Your task to perform on an android device: Play the last video I watched on Youtube Image 0: 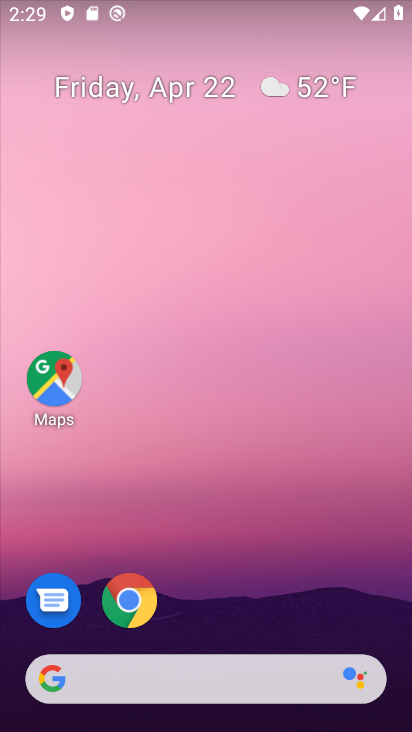
Step 0: drag from (342, 496) to (252, 59)
Your task to perform on an android device: Play the last video I watched on Youtube Image 1: 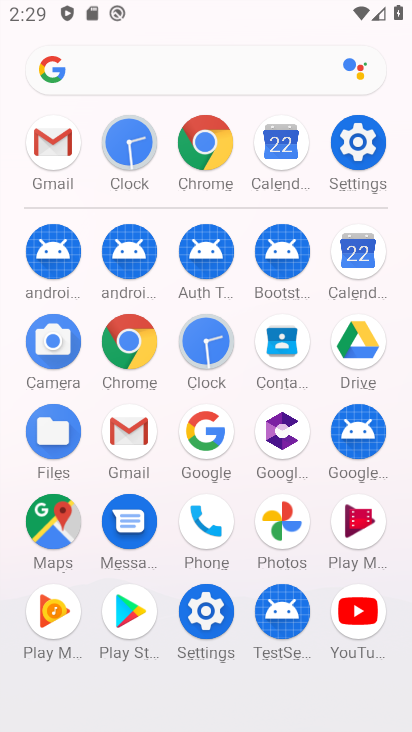
Step 1: drag from (18, 485) to (8, 251)
Your task to perform on an android device: Play the last video I watched on Youtube Image 2: 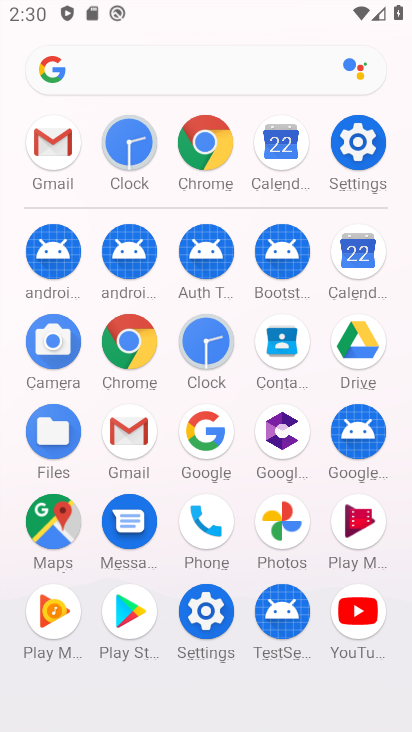
Step 2: click (359, 607)
Your task to perform on an android device: Play the last video I watched on Youtube Image 3: 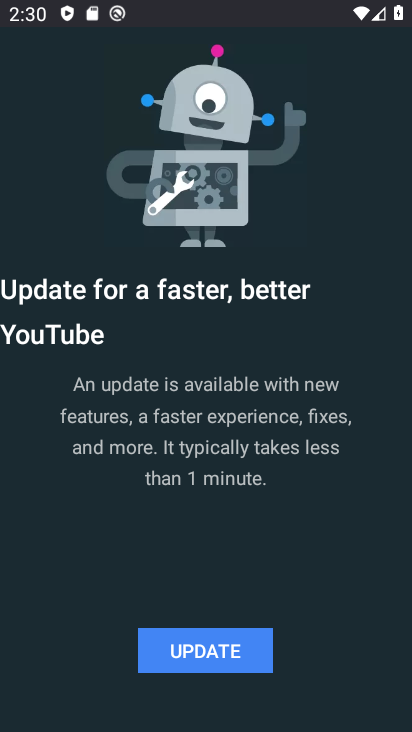
Step 3: click (233, 648)
Your task to perform on an android device: Play the last video I watched on Youtube Image 4: 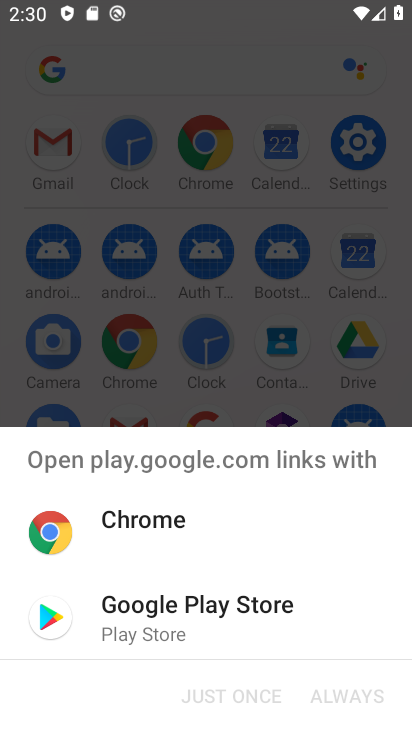
Step 4: click (175, 601)
Your task to perform on an android device: Play the last video I watched on Youtube Image 5: 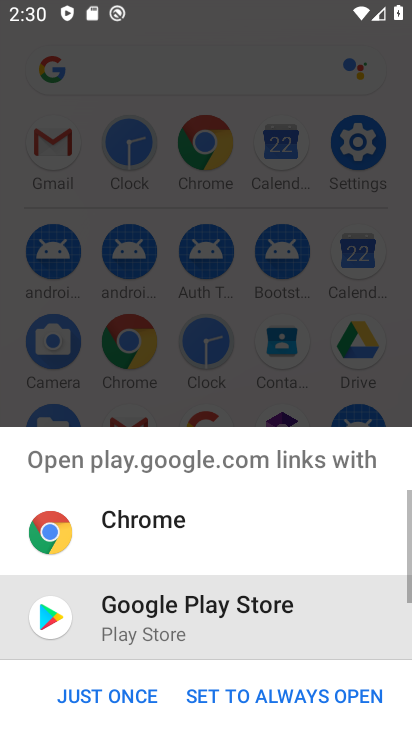
Step 5: click (118, 699)
Your task to perform on an android device: Play the last video I watched on Youtube Image 6: 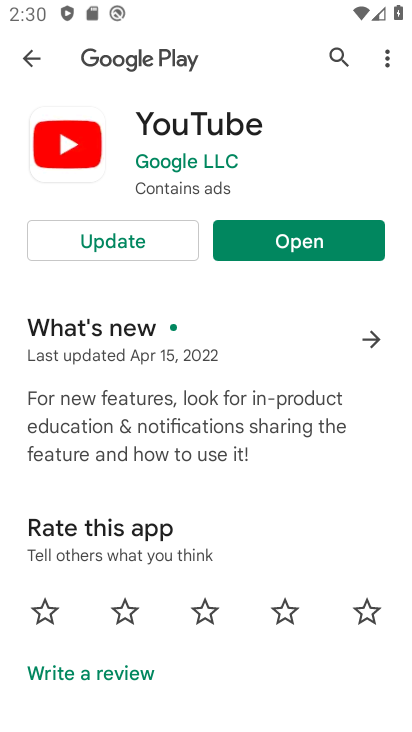
Step 6: click (142, 227)
Your task to perform on an android device: Play the last video I watched on Youtube Image 7: 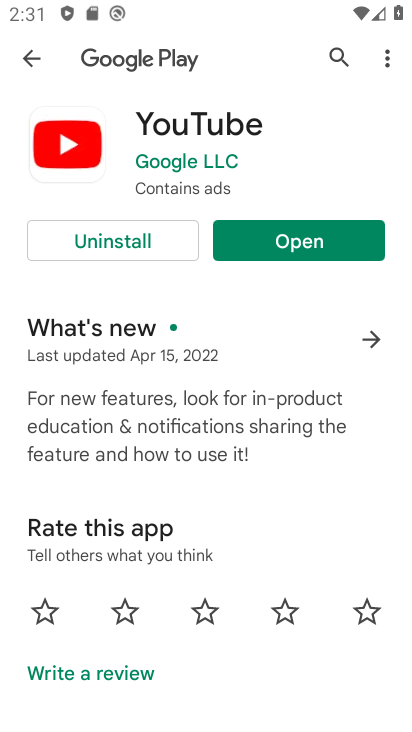
Step 7: click (331, 243)
Your task to perform on an android device: Play the last video I watched on Youtube Image 8: 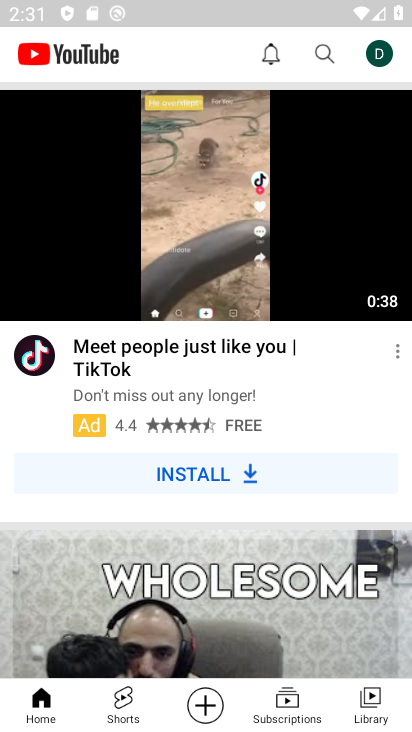
Step 8: click (377, 706)
Your task to perform on an android device: Play the last video I watched on Youtube Image 9: 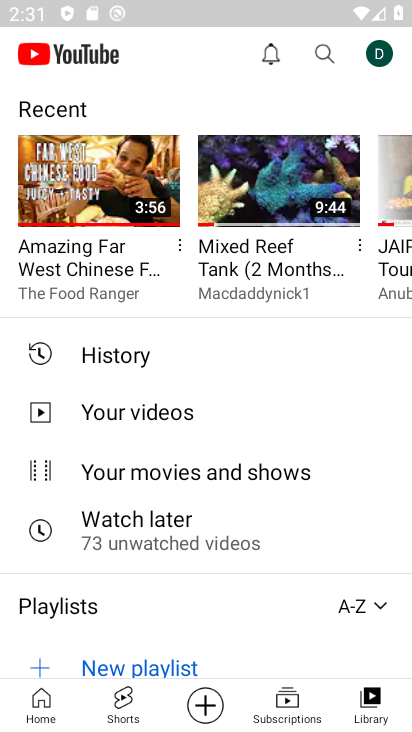
Step 9: click (109, 215)
Your task to perform on an android device: Play the last video I watched on Youtube Image 10: 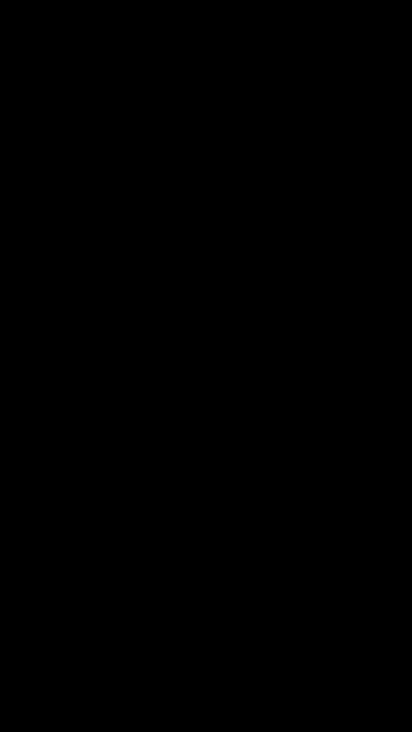
Step 10: task complete